Your task to perform on an android device: Open battery settings Image 0: 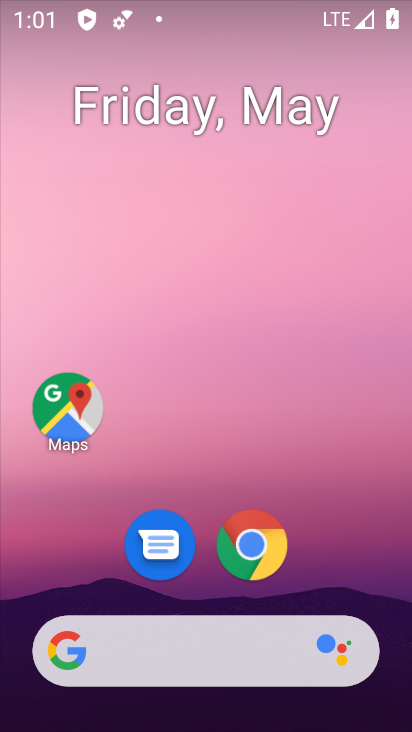
Step 0: drag from (331, 506) to (207, 3)
Your task to perform on an android device: Open battery settings Image 1: 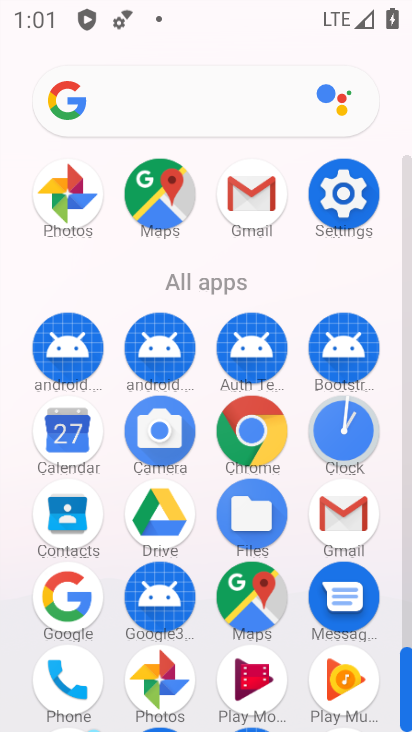
Step 1: click (360, 190)
Your task to perform on an android device: Open battery settings Image 2: 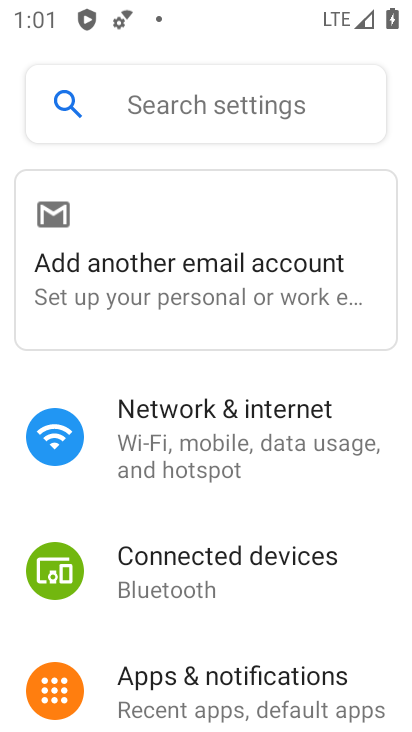
Step 2: drag from (260, 590) to (176, 67)
Your task to perform on an android device: Open battery settings Image 3: 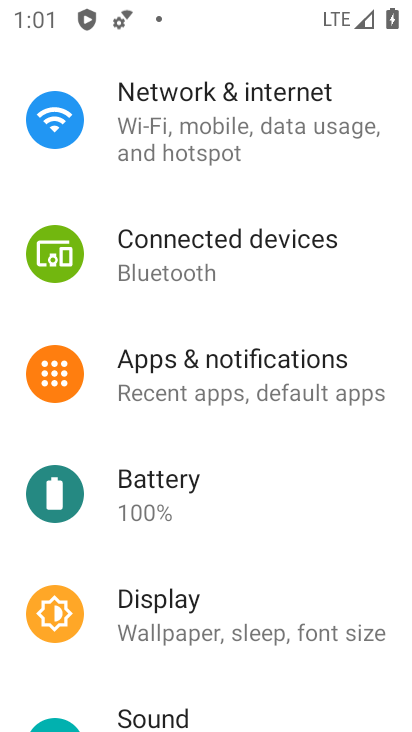
Step 3: click (216, 482)
Your task to perform on an android device: Open battery settings Image 4: 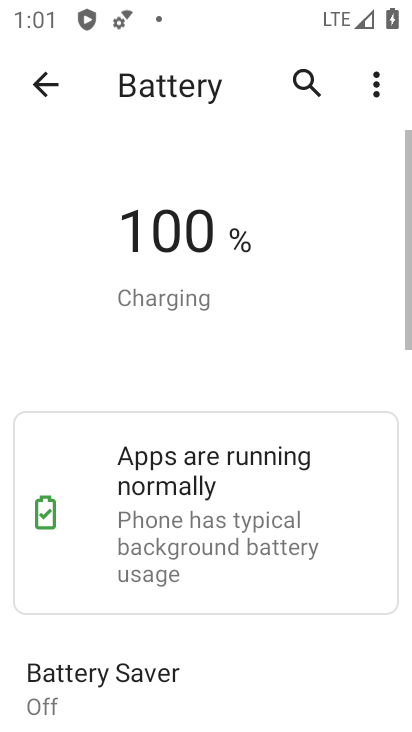
Step 4: task complete